Your task to perform on an android device: Show the shopping cart on walmart. Image 0: 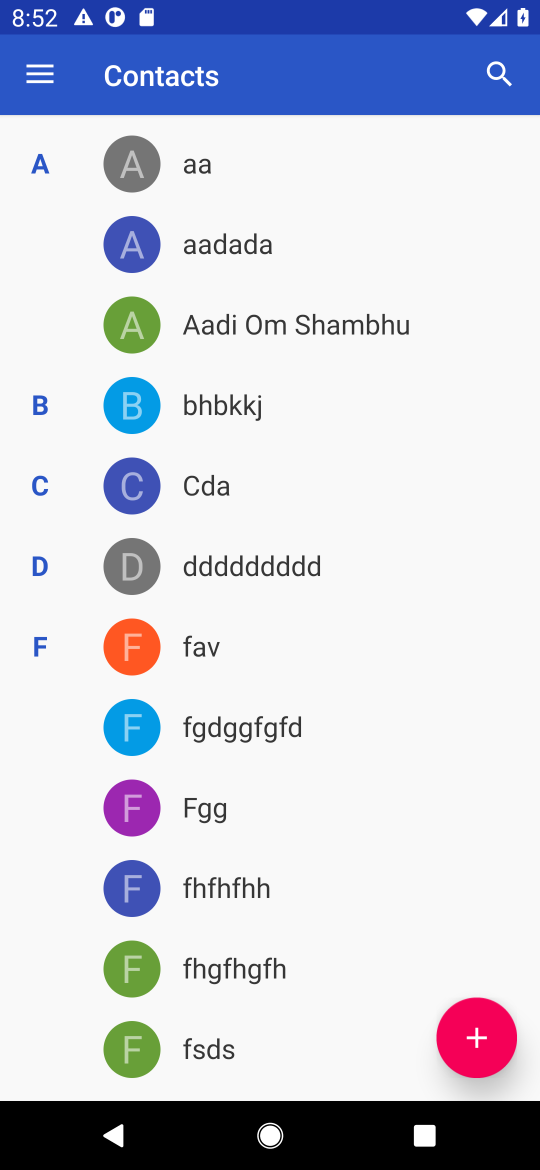
Step 0: press home button
Your task to perform on an android device: Show the shopping cart on walmart. Image 1: 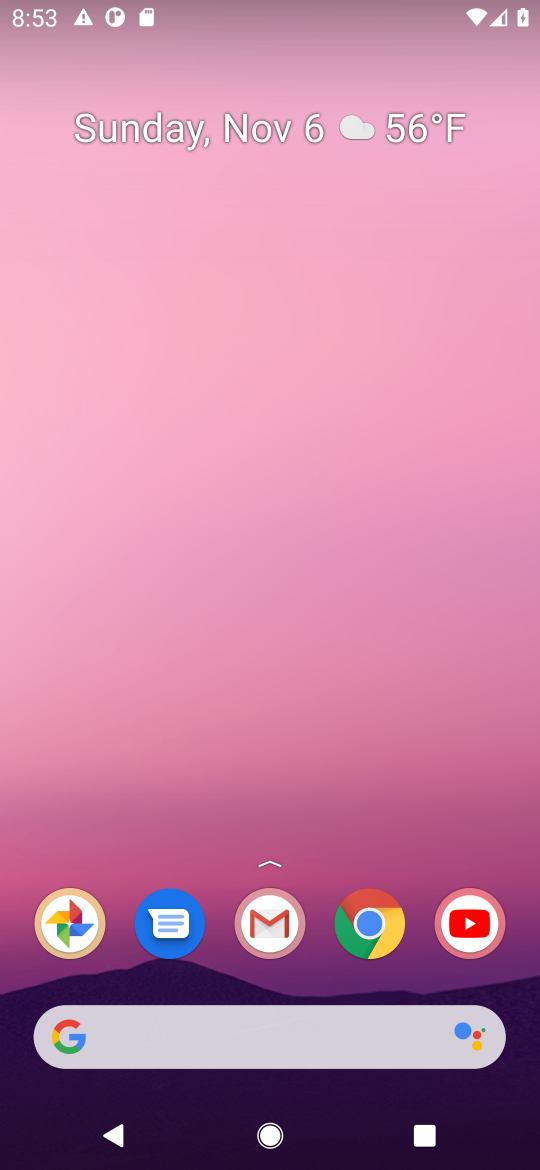
Step 1: click (364, 915)
Your task to perform on an android device: Show the shopping cart on walmart. Image 2: 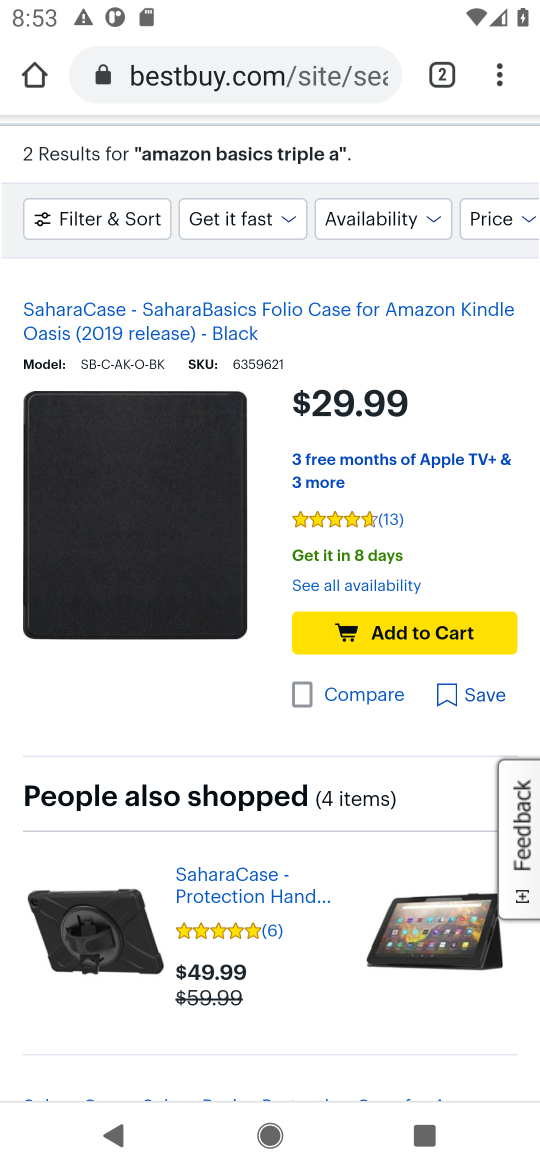
Step 2: click (173, 69)
Your task to perform on an android device: Show the shopping cart on walmart. Image 3: 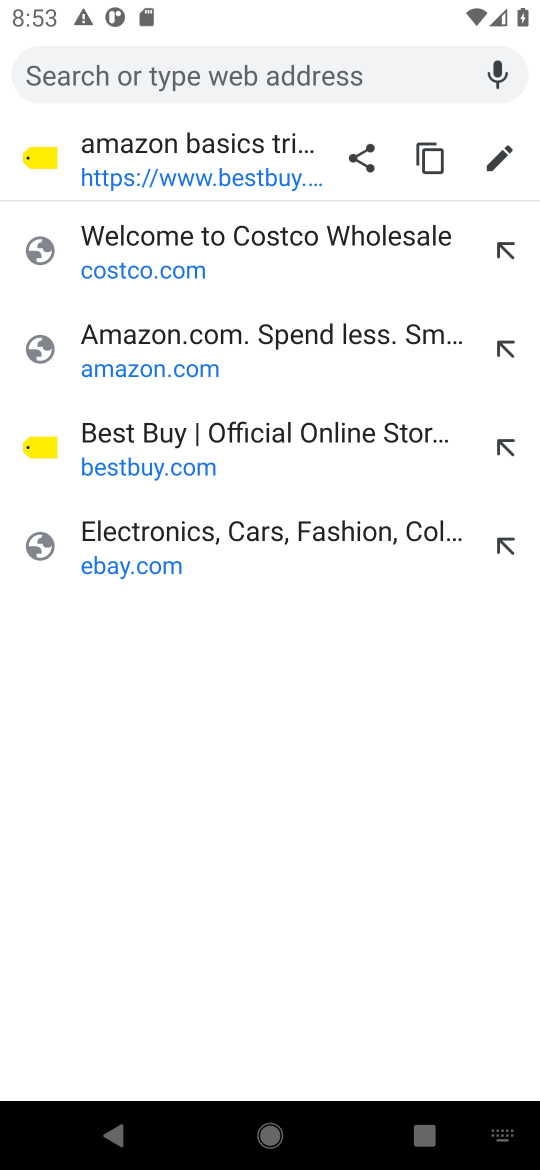
Step 3: type "walmart.com"
Your task to perform on an android device: Show the shopping cart on walmart. Image 4: 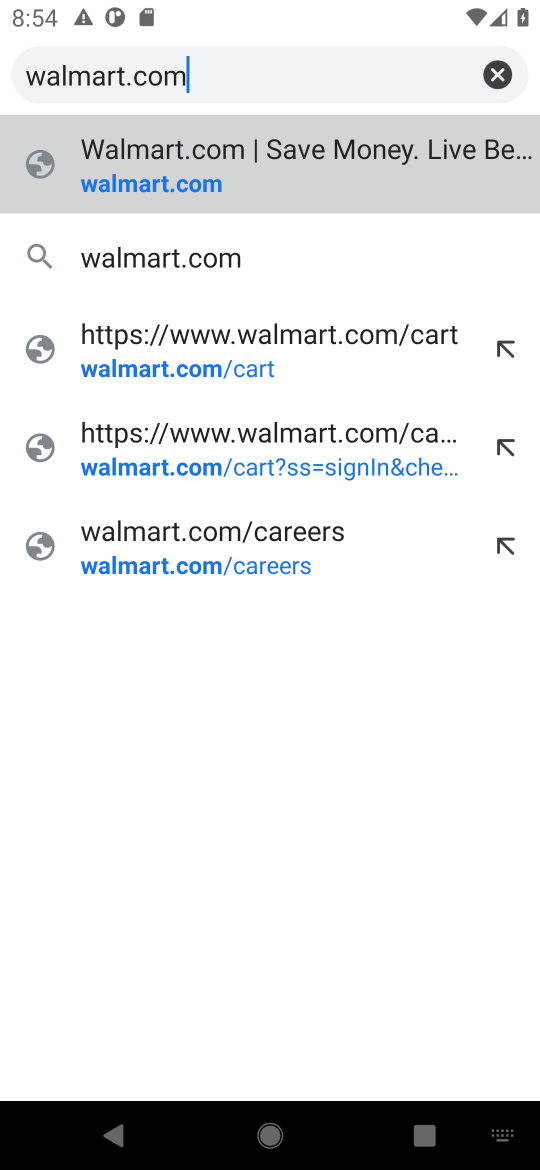
Step 4: click (153, 182)
Your task to perform on an android device: Show the shopping cart on walmart. Image 5: 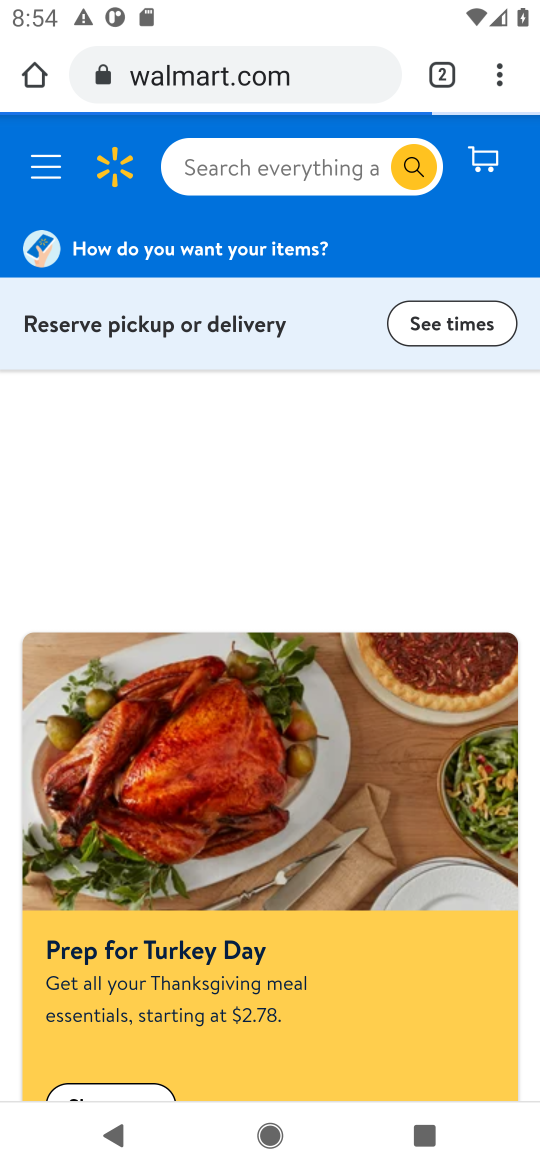
Step 5: click (482, 156)
Your task to perform on an android device: Show the shopping cart on walmart. Image 6: 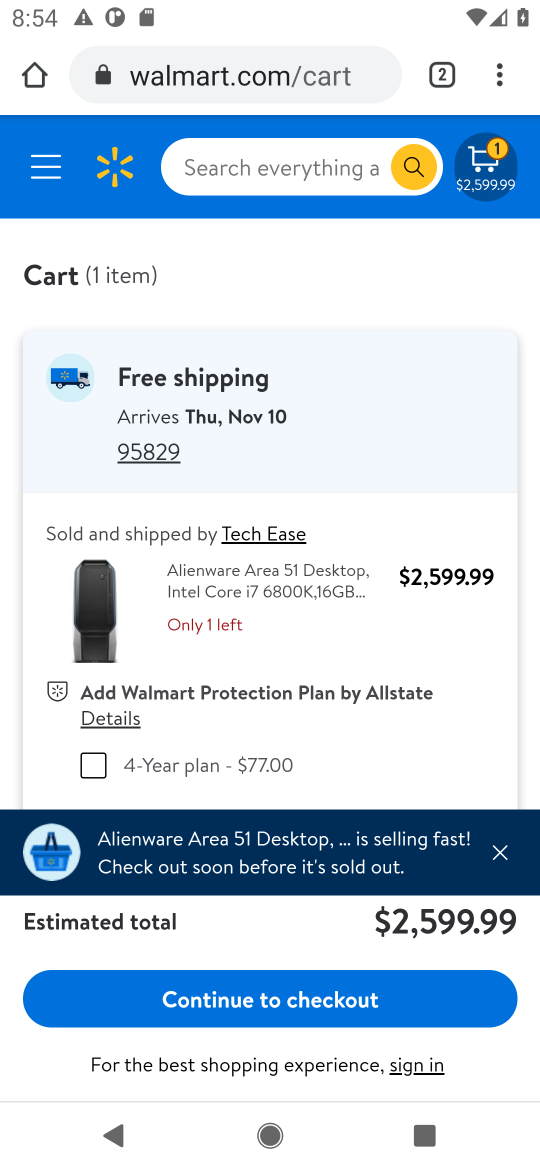
Step 6: task complete